Your task to perform on an android device: Open settings Image 0: 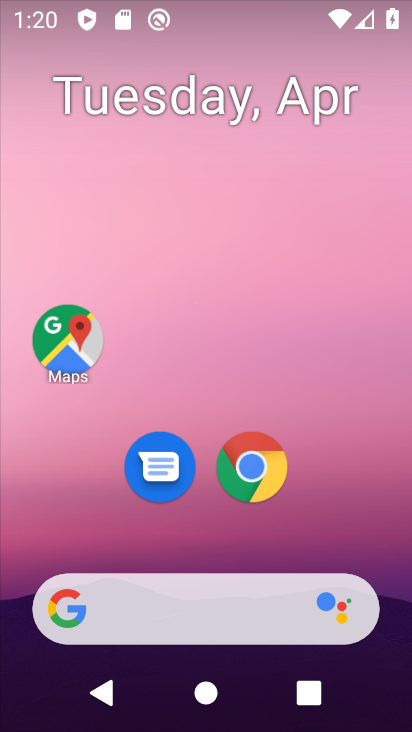
Step 0: drag from (360, 536) to (355, 105)
Your task to perform on an android device: Open settings Image 1: 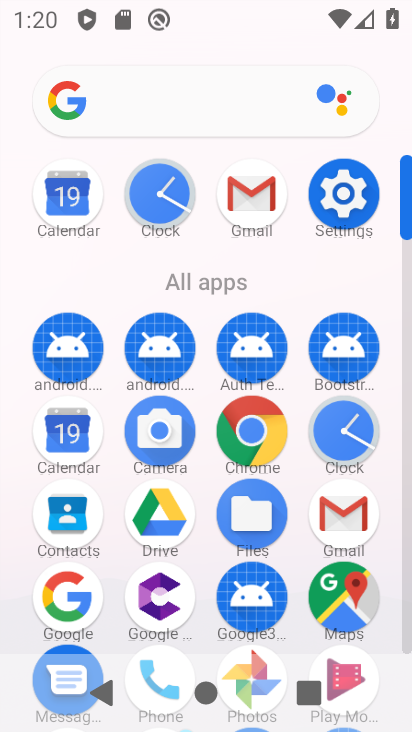
Step 1: click (353, 205)
Your task to perform on an android device: Open settings Image 2: 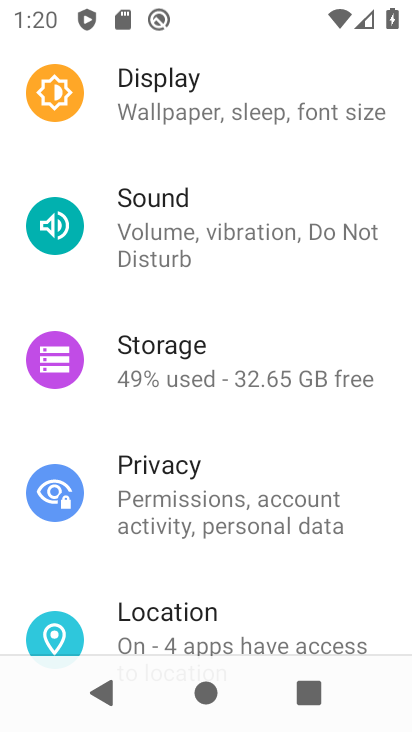
Step 2: task complete